Your task to perform on an android device: Go to eBay Image 0: 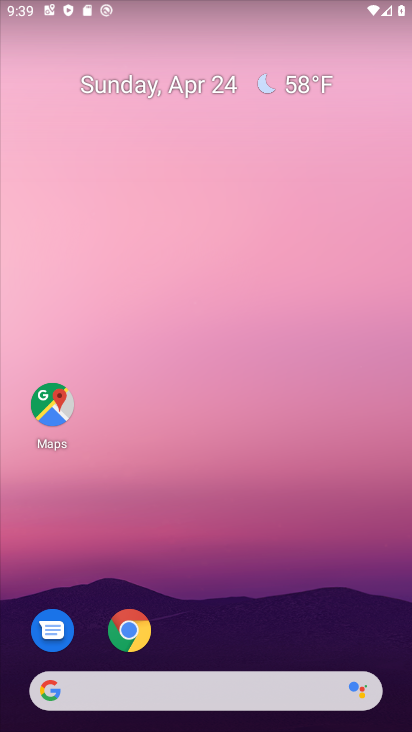
Step 0: drag from (244, 643) to (334, 104)
Your task to perform on an android device: Go to eBay Image 1: 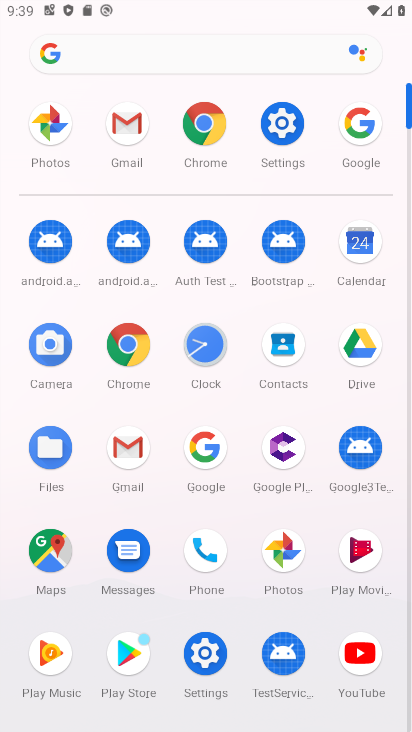
Step 1: click (210, 141)
Your task to perform on an android device: Go to eBay Image 2: 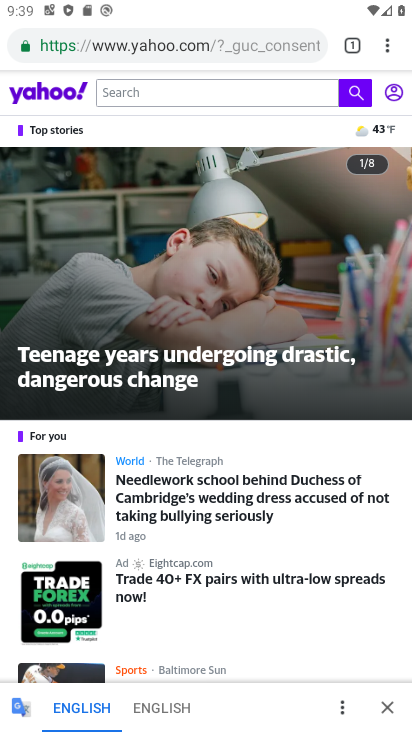
Step 2: click (270, 43)
Your task to perform on an android device: Go to eBay Image 3: 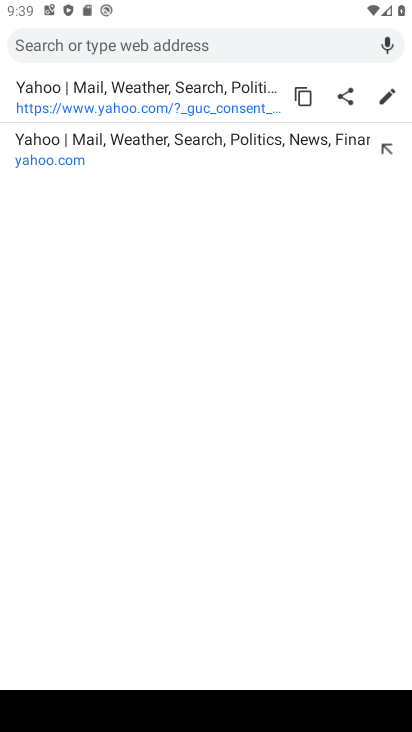
Step 3: type "ebay"
Your task to perform on an android device: Go to eBay Image 4: 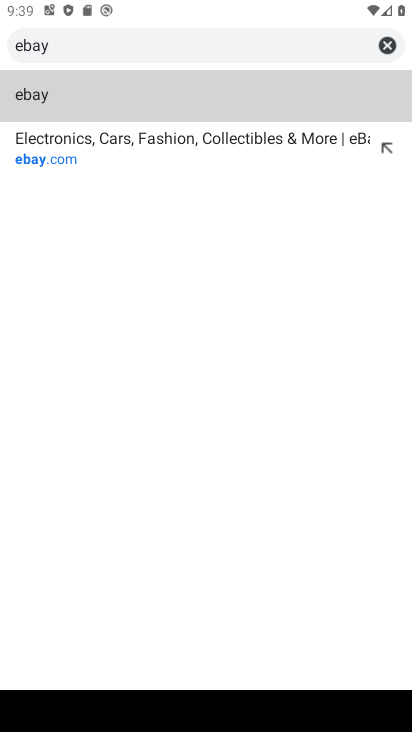
Step 4: click (295, 155)
Your task to perform on an android device: Go to eBay Image 5: 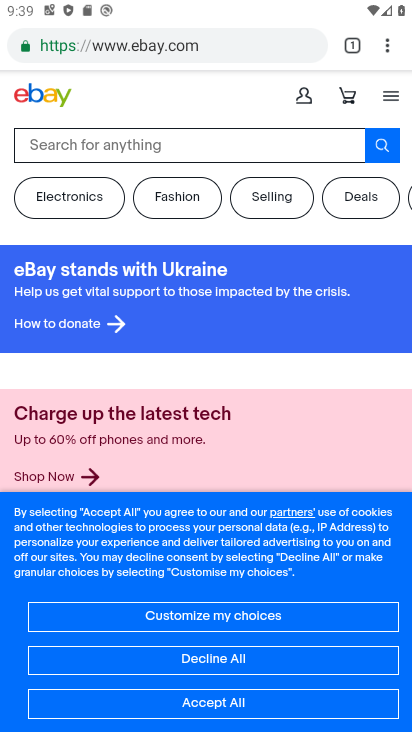
Step 5: task complete